Your task to perform on an android device: Toggle the flashlight Image 0: 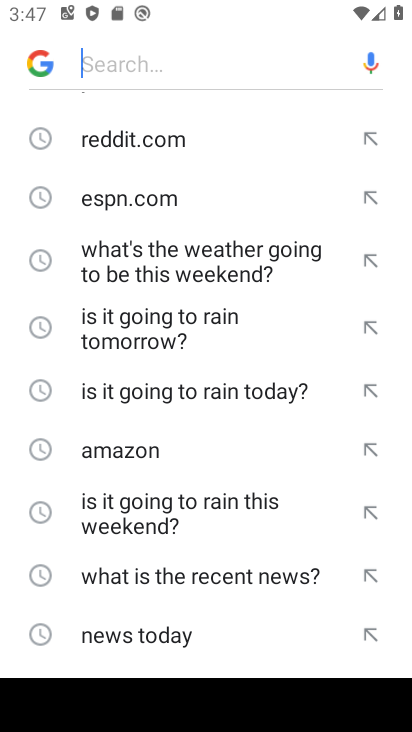
Step 0: drag from (293, 109) to (376, 408)
Your task to perform on an android device: Toggle the flashlight Image 1: 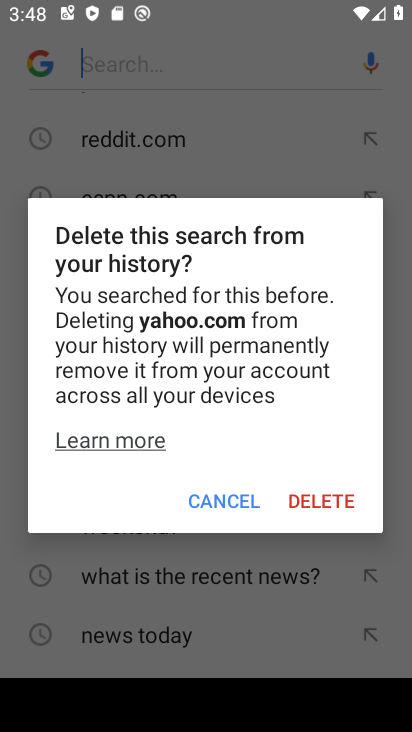
Step 1: click (276, 646)
Your task to perform on an android device: Toggle the flashlight Image 2: 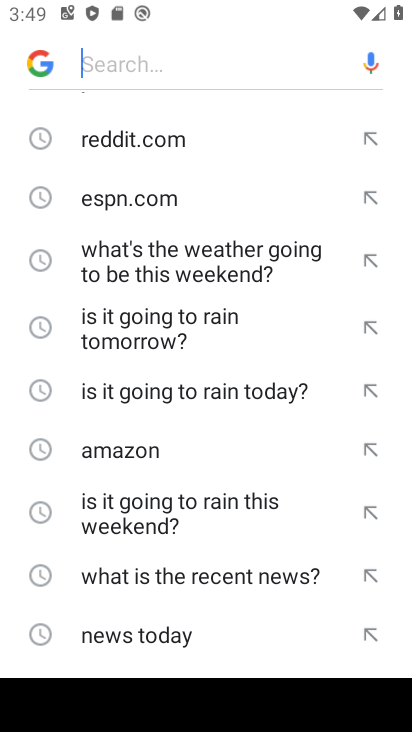
Step 2: drag from (240, 0) to (248, 546)
Your task to perform on an android device: Toggle the flashlight Image 3: 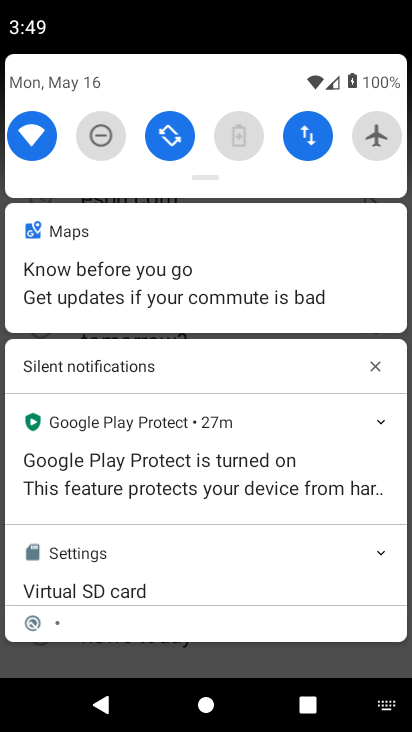
Step 3: drag from (187, 143) to (181, 533)
Your task to perform on an android device: Toggle the flashlight Image 4: 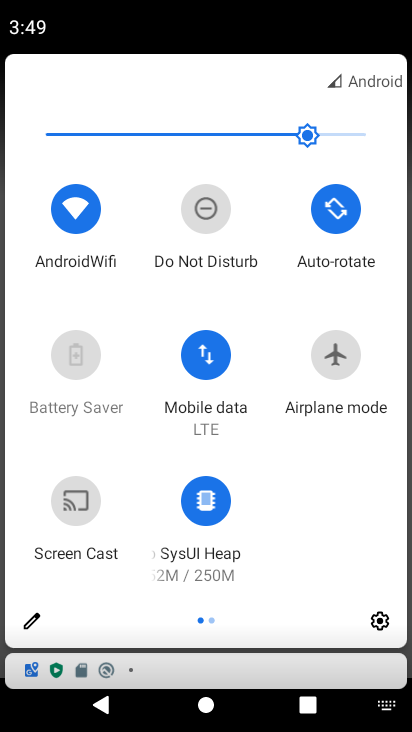
Step 4: drag from (332, 403) to (42, 456)
Your task to perform on an android device: Toggle the flashlight Image 5: 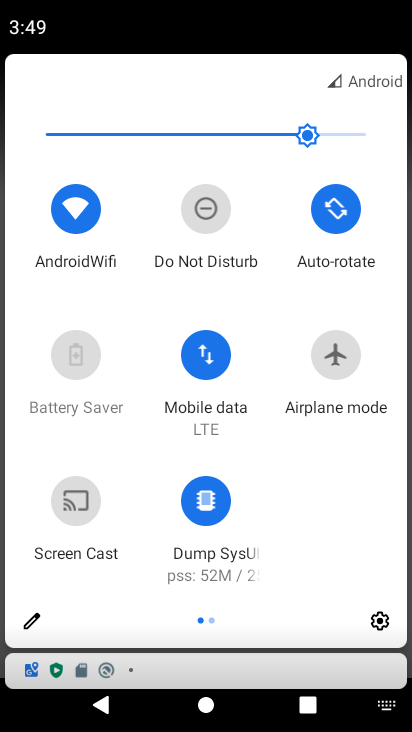
Step 5: drag from (378, 420) to (8, 432)
Your task to perform on an android device: Toggle the flashlight Image 6: 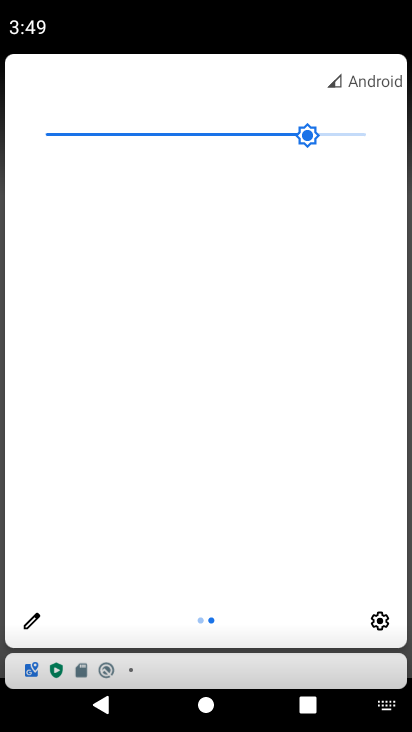
Step 6: click (31, 619)
Your task to perform on an android device: Toggle the flashlight Image 7: 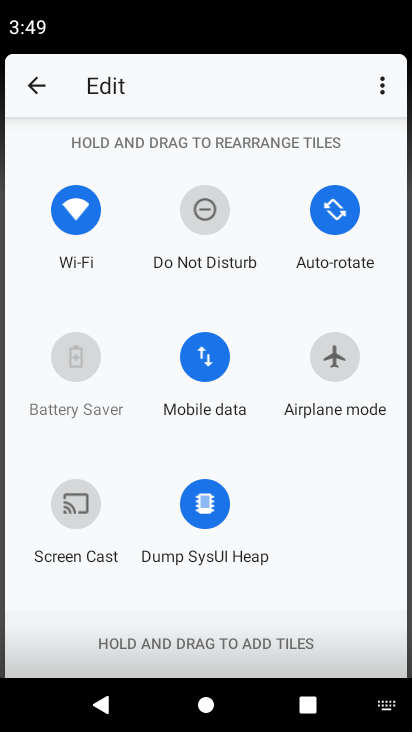
Step 7: task complete